Your task to perform on an android device: Open the calendar and show me this week's events Image 0: 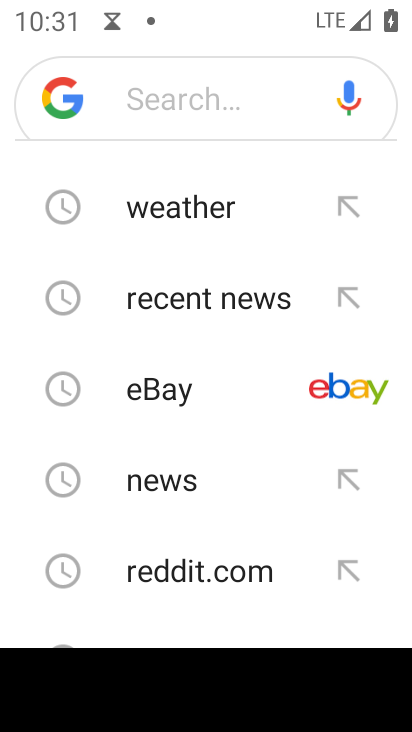
Step 0: press home button
Your task to perform on an android device: Open the calendar and show me this week's events Image 1: 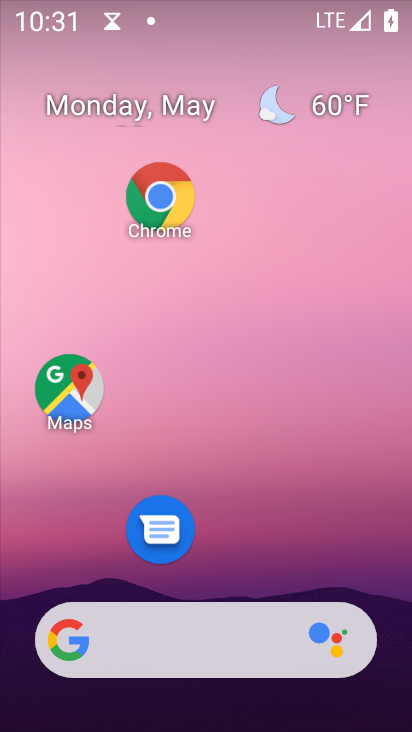
Step 1: drag from (233, 559) to (191, 18)
Your task to perform on an android device: Open the calendar and show me this week's events Image 2: 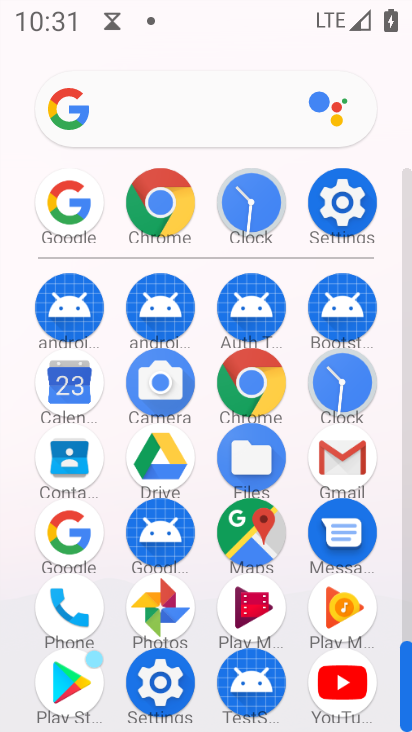
Step 2: click (60, 411)
Your task to perform on an android device: Open the calendar and show me this week's events Image 3: 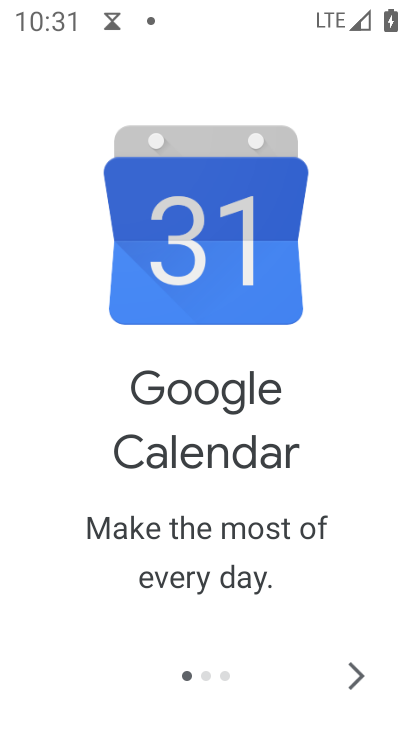
Step 3: click (360, 675)
Your task to perform on an android device: Open the calendar and show me this week's events Image 4: 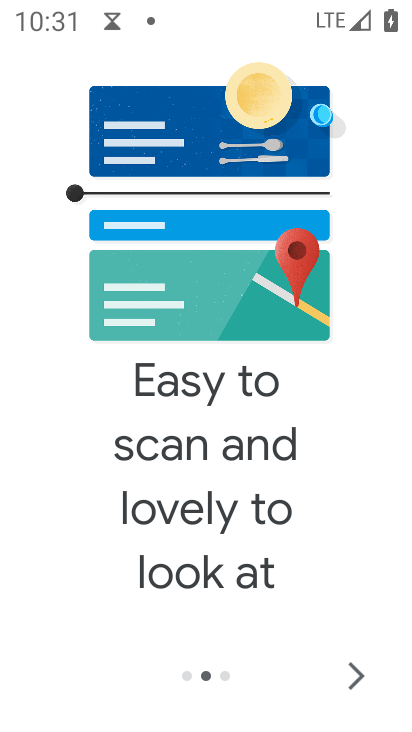
Step 4: click (360, 677)
Your task to perform on an android device: Open the calendar and show me this week's events Image 5: 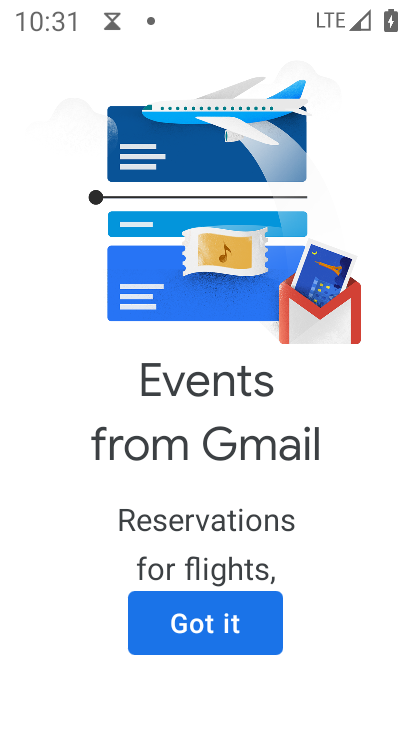
Step 5: click (211, 630)
Your task to perform on an android device: Open the calendar and show me this week's events Image 6: 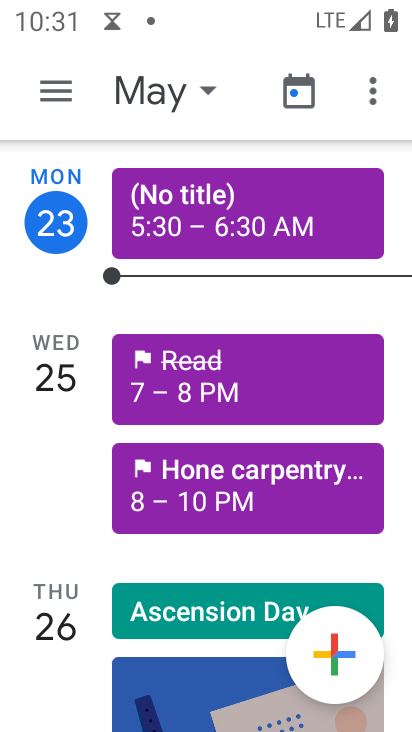
Step 6: click (54, 93)
Your task to perform on an android device: Open the calendar and show me this week's events Image 7: 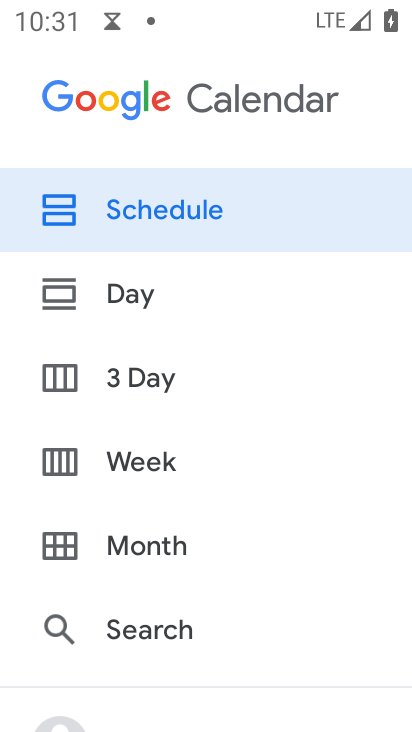
Step 7: click (151, 469)
Your task to perform on an android device: Open the calendar and show me this week's events Image 8: 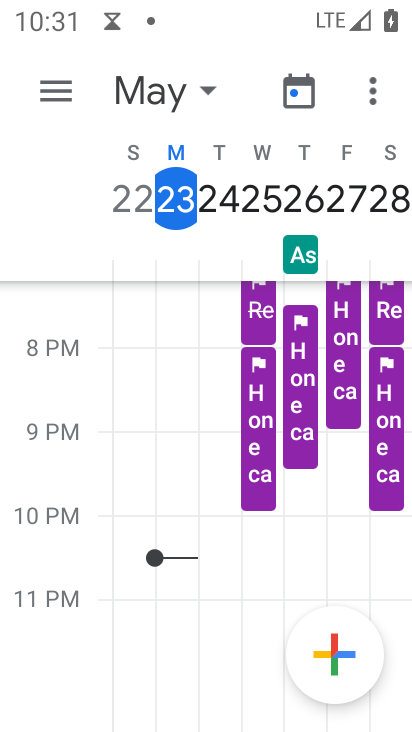
Step 8: task complete